Your task to perform on an android device: Search for Italian restaurants on Maps Image 0: 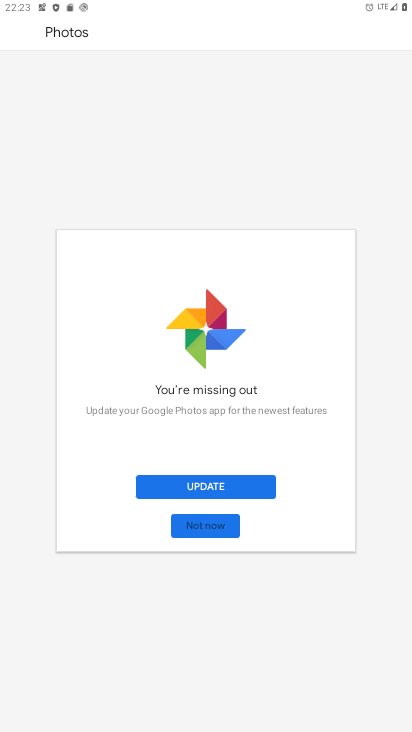
Step 0: press home button
Your task to perform on an android device: Search for Italian restaurants on Maps Image 1: 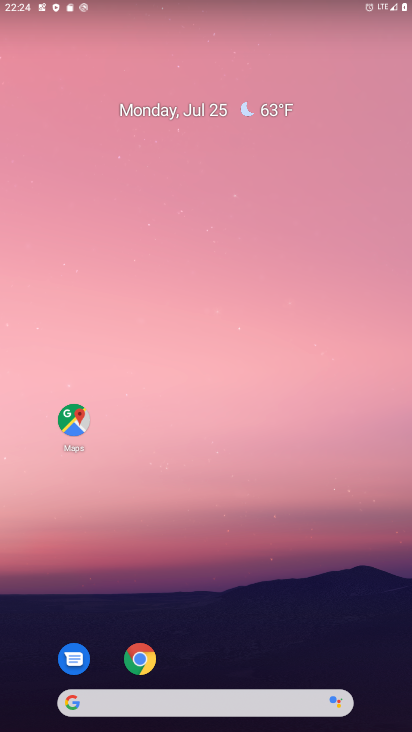
Step 1: drag from (236, 725) to (234, 82)
Your task to perform on an android device: Search for Italian restaurants on Maps Image 2: 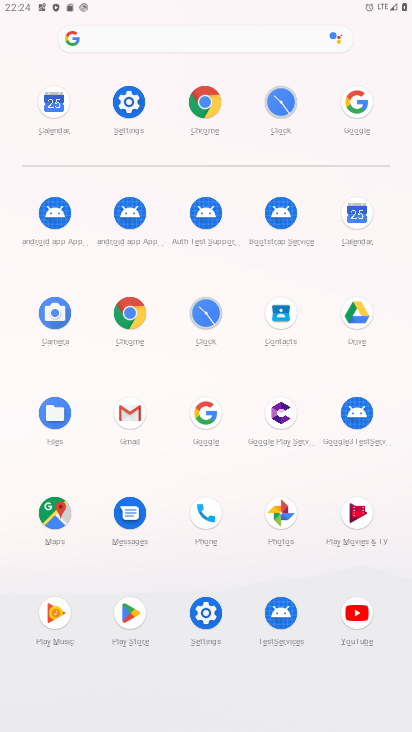
Step 2: click (56, 511)
Your task to perform on an android device: Search for Italian restaurants on Maps Image 3: 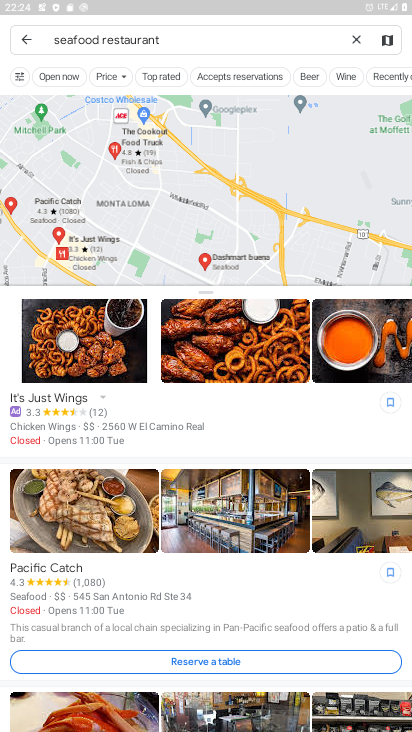
Step 3: click (354, 36)
Your task to perform on an android device: Search for Italian restaurants on Maps Image 4: 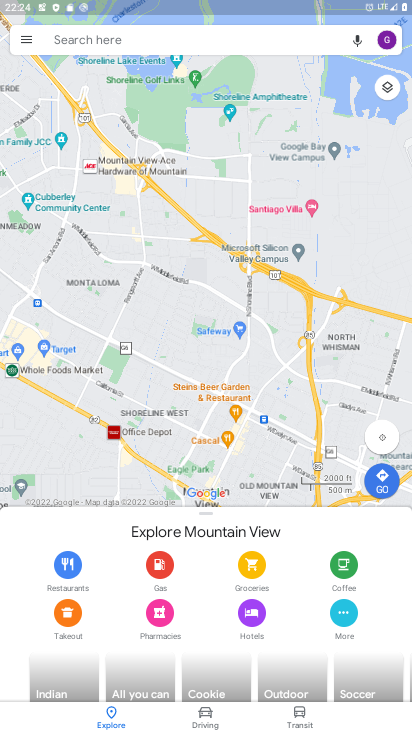
Step 4: click (276, 37)
Your task to perform on an android device: Search for Italian restaurants on Maps Image 5: 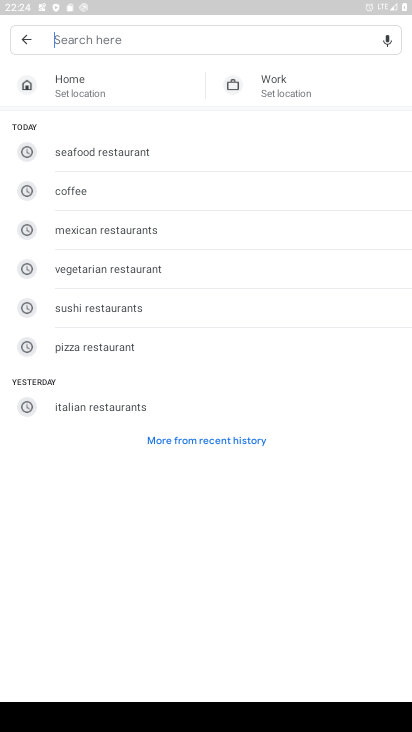
Step 5: type "italian restaurants"
Your task to perform on an android device: Search for Italian restaurants on Maps Image 6: 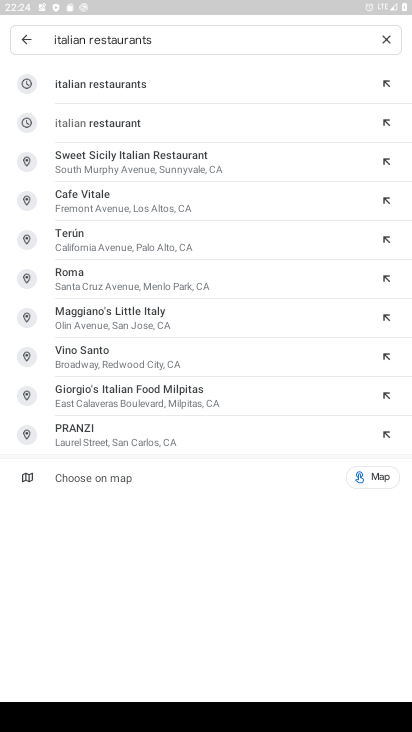
Step 6: click (124, 77)
Your task to perform on an android device: Search for Italian restaurants on Maps Image 7: 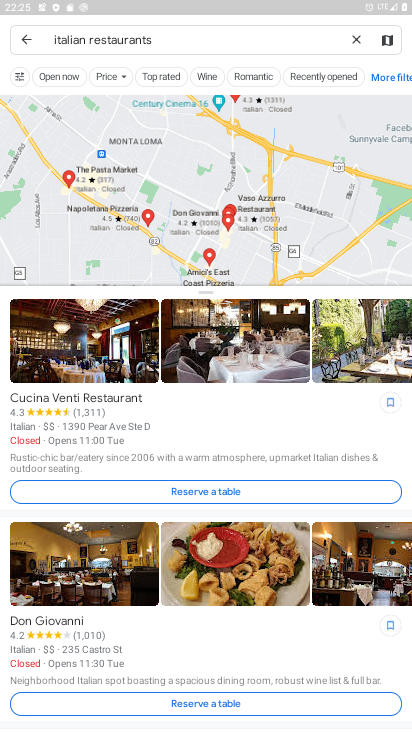
Step 7: task complete